Your task to perform on an android device: Open battery settings Image 0: 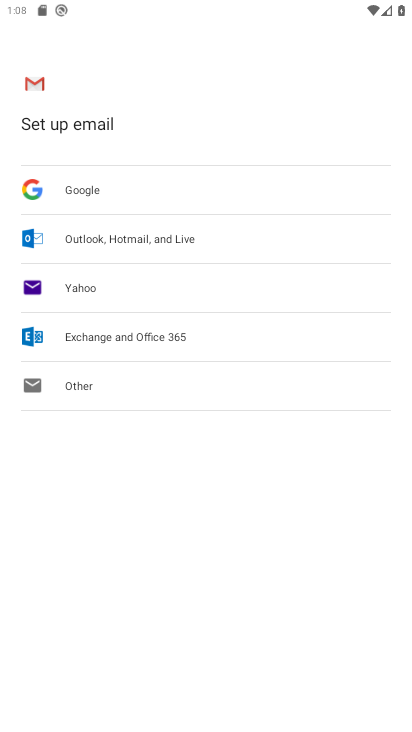
Step 0: press home button
Your task to perform on an android device: Open battery settings Image 1: 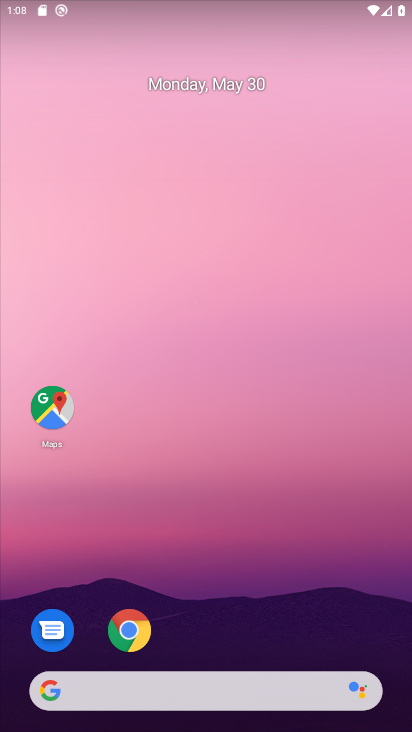
Step 1: drag from (183, 691) to (310, 141)
Your task to perform on an android device: Open battery settings Image 2: 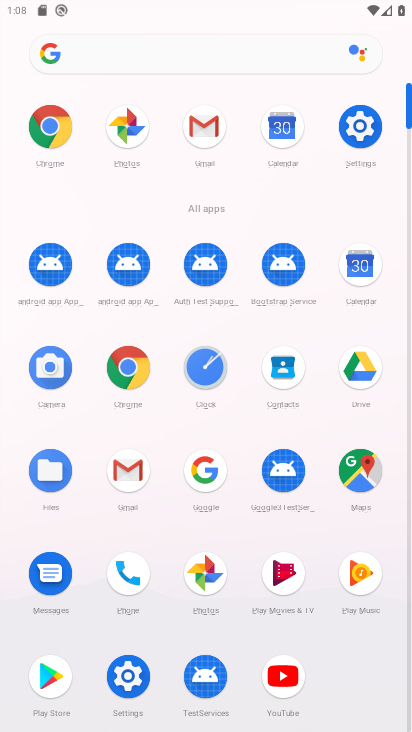
Step 2: click (353, 134)
Your task to perform on an android device: Open battery settings Image 3: 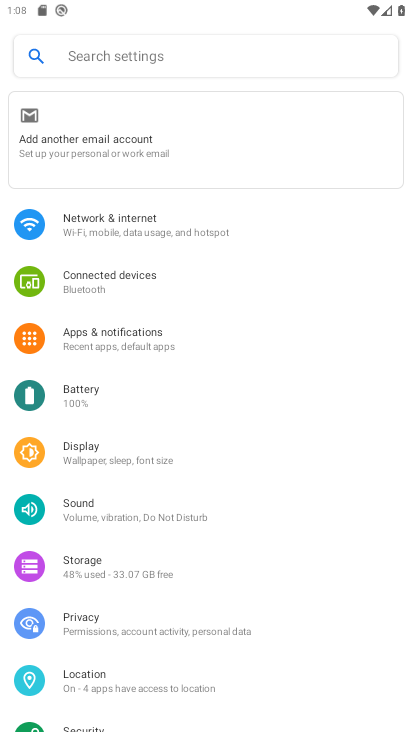
Step 3: click (87, 404)
Your task to perform on an android device: Open battery settings Image 4: 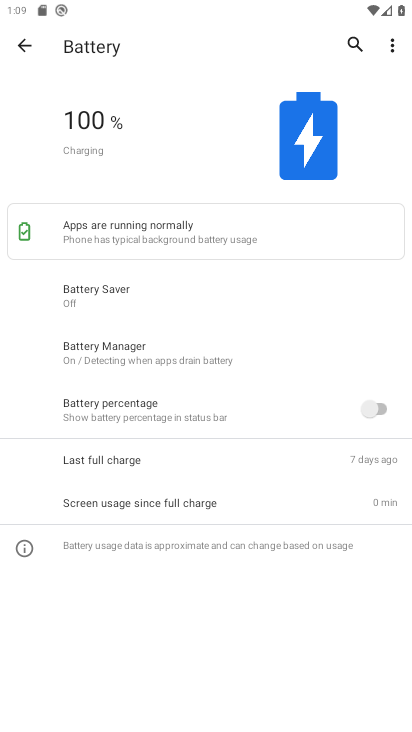
Step 4: task complete